Your task to perform on an android device: Open internet settings Image 0: 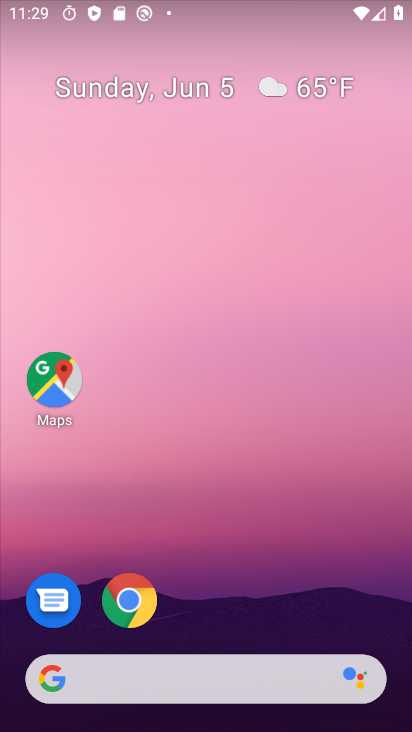
Step 0: click (209, 219)
Your task to perform on an android device: Open internet settings Image 1: 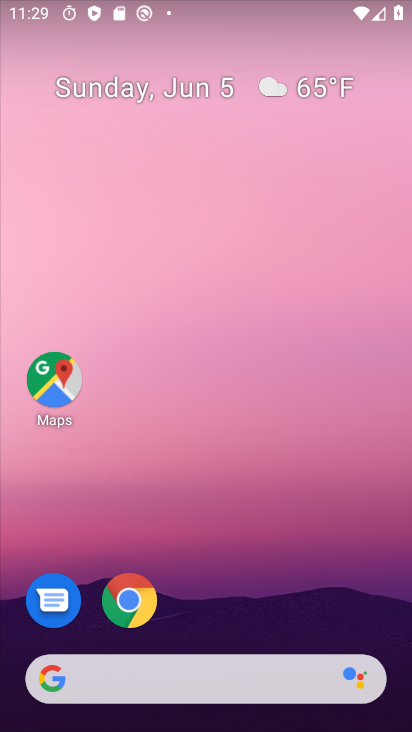
Step 1: drag from (223, 603) to (166, 120)
Your task to perform on an android device: Open internet settings Image 2: 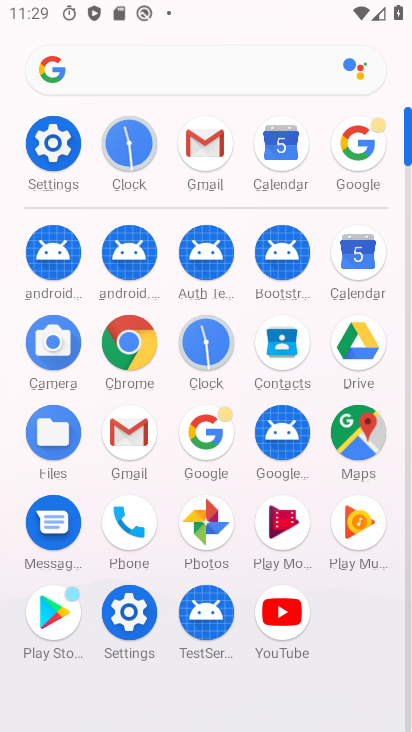
Step 2: click (50, 151)
Your task to perform on an android device: Open internet settings Image 3: 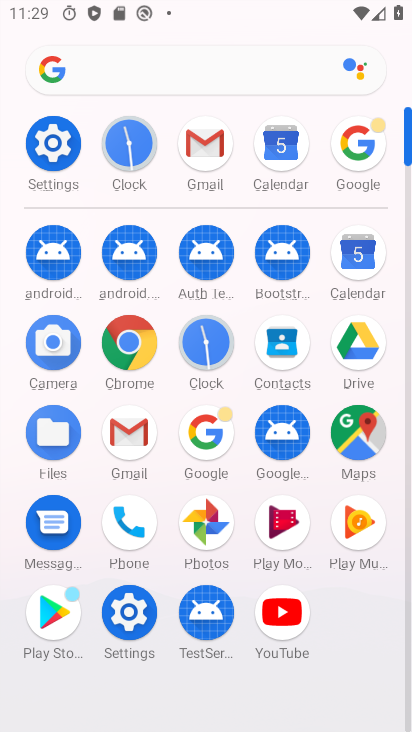
Step 3: click (56, 150)
Your task to perform on an android device: Open internet settings Image 4: 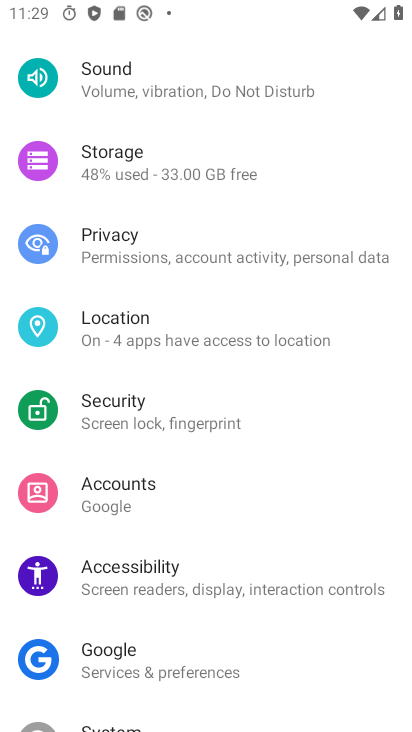
Step 4: drag from (158, 105) to (258, 584)
Your task to perform on an android device: Open internet settings Image 5: 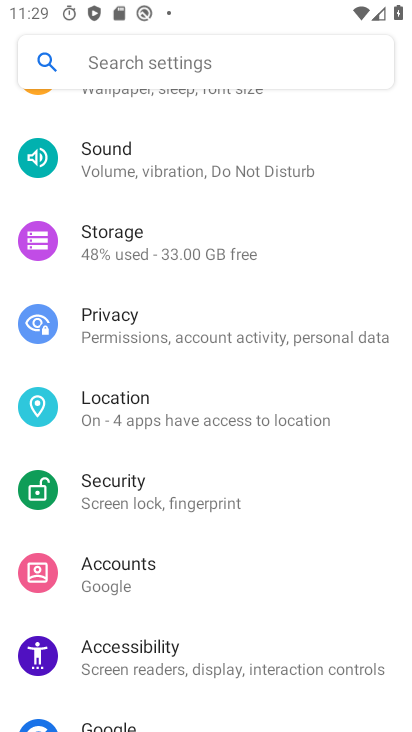
Step 5: drag from (162, 160) to (231, 589)
Your task to perform on an android device: Open internet settings Image 6: 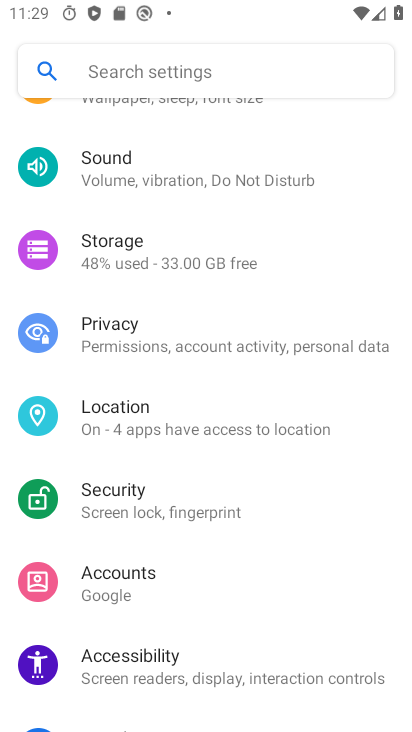
Step 6: drag from (202, 359) to (280, 647)
Your task to perform on an android device: Open internet settings Image 7: 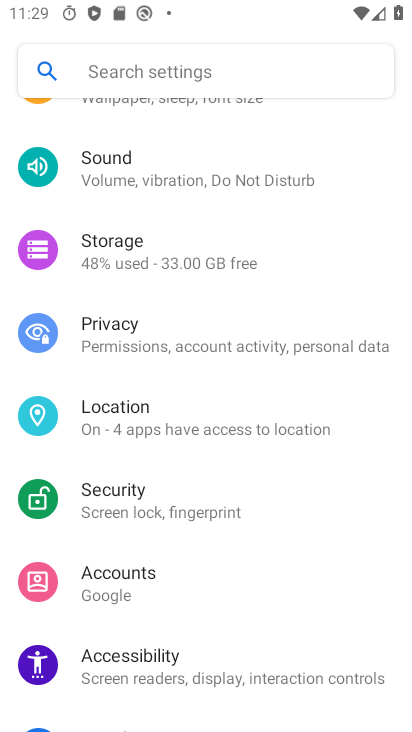
Step 7: drag from (130, 154) to (201, 470)
Your task to perform on an android device: Open internet settings Image 8: 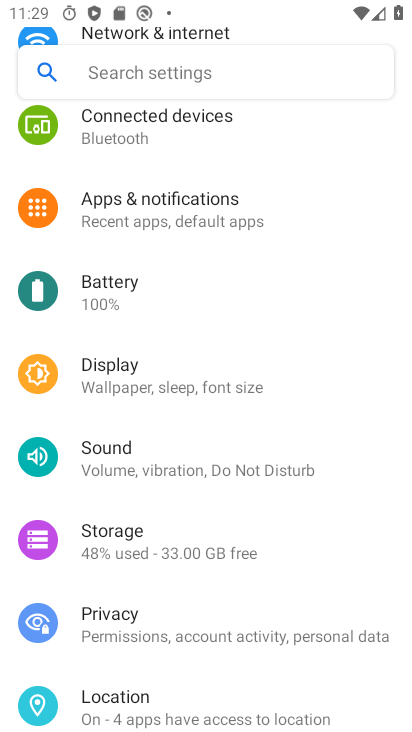
Step 8: drag from (180, 227) to (236, 415)
Your task to perform on an android device: Open internet settings Image 9: 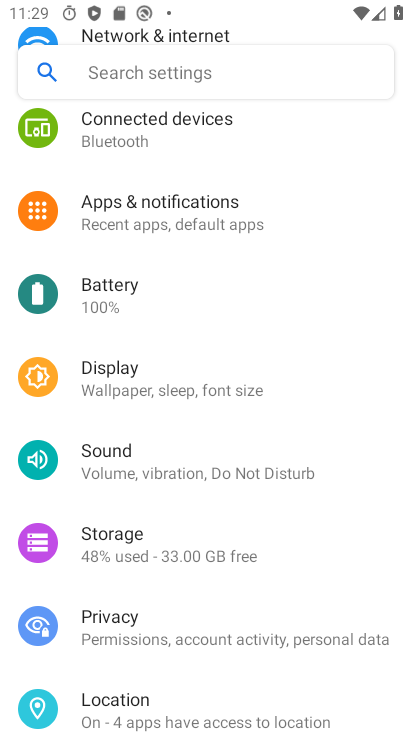
Step 9: drag from (173, 65) to (206, 610)
Your task to perform on an android device: Open internet settings Image 10: 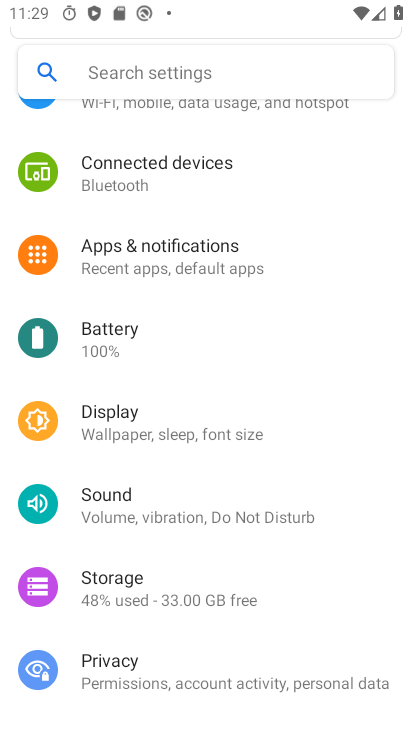
Step 10: drag from (112, 150) to (136, 679)
Your task to perform on an android device: Open internet settings Image 11: 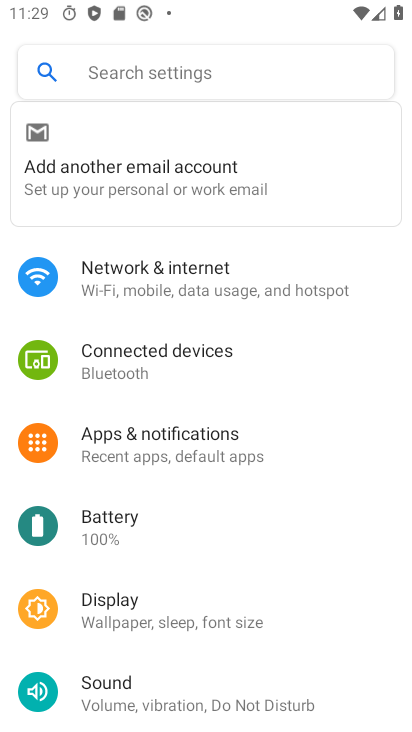
Step 11: click (117, 578)
Your task to perform on an android device: Open internet settings Image 12: 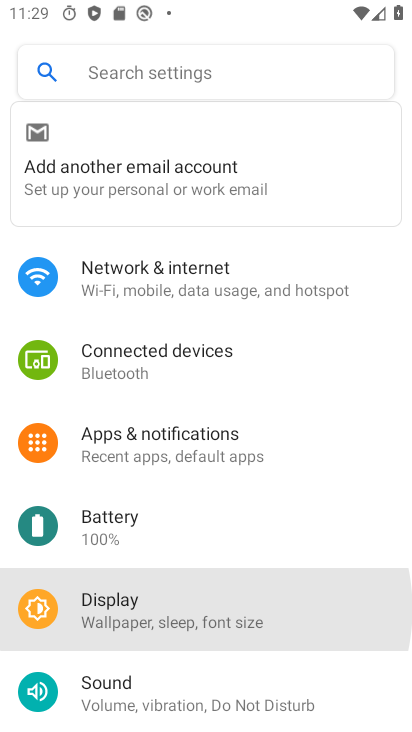
Step 12: drag from (125, 286) to (307, 591)
Your task to perform on an android device: Open internet settings Image 13: 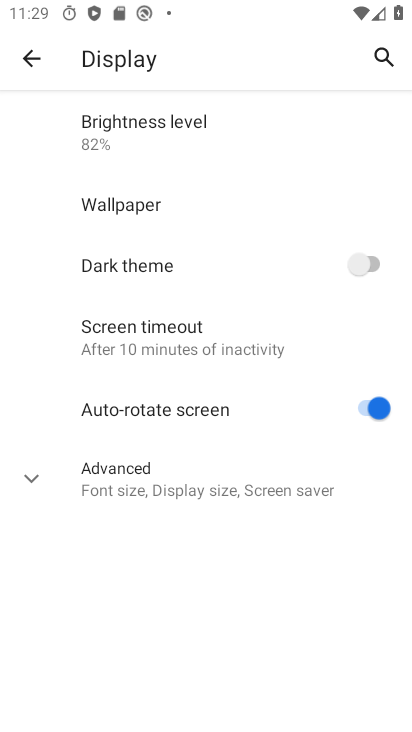
Step 13: drag from (230, 137) to (223, 543)
Your task to perform on an android device: Open internet settings Image 14: 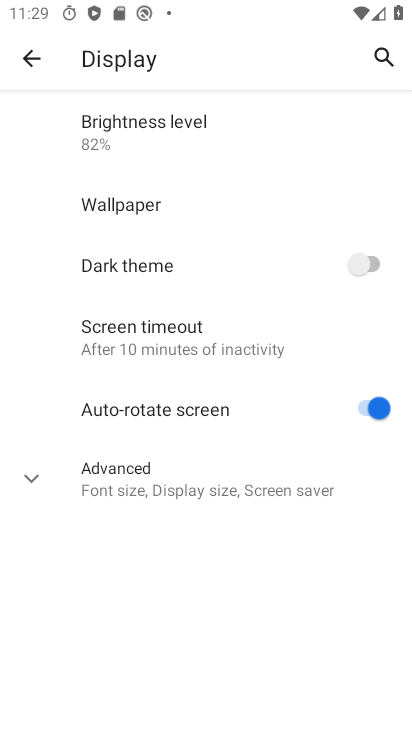
Step 14: click (30, 50)
Your task to perform on an android device: Open internet settings Image 15: 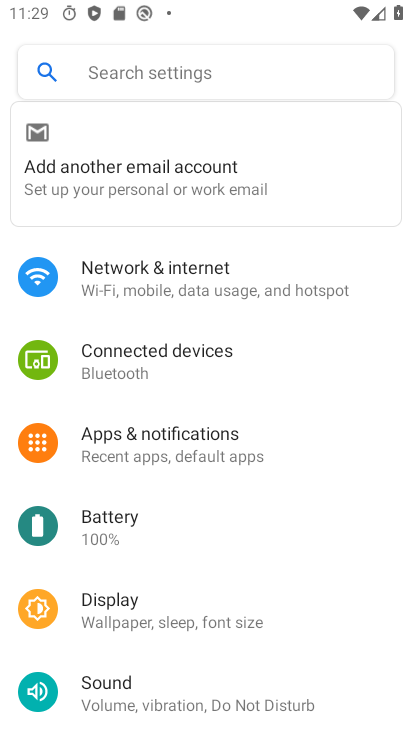
Step 15: click (176, 270)
Your task to perform on an android device: Open internet settings Image 16: 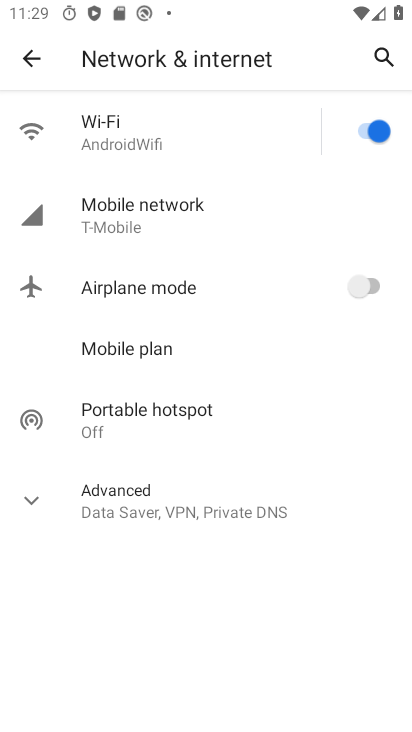
Step 16: task complete